Your task to perform on an android device: Add "lg ultragear" to the cart on ebay.com Image 0: 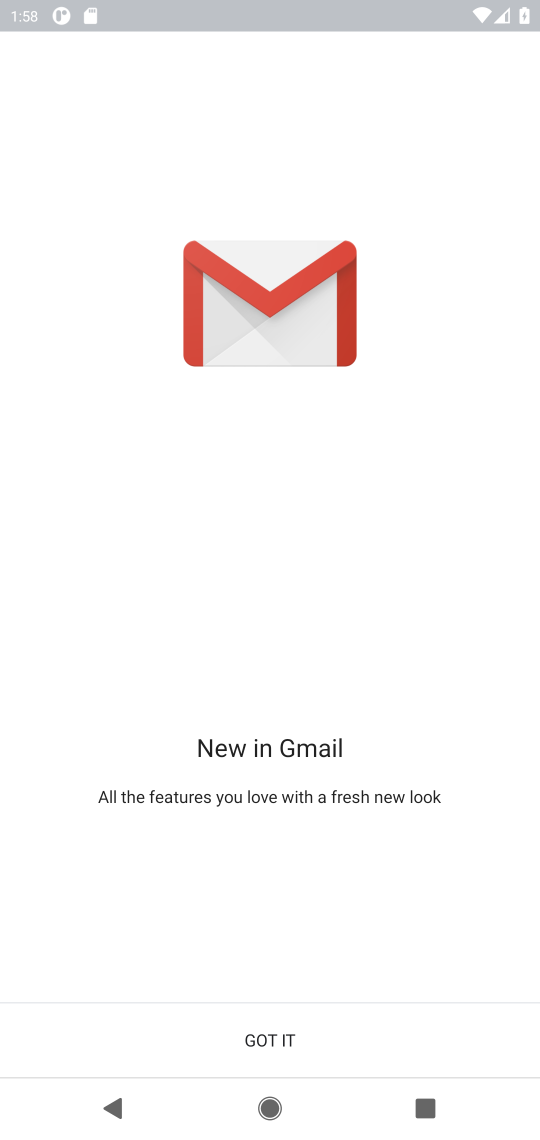
Step 0: press home button
Your task to perform on an android device: Add "lg ultragear" to the cart on ebay.com Image 1: 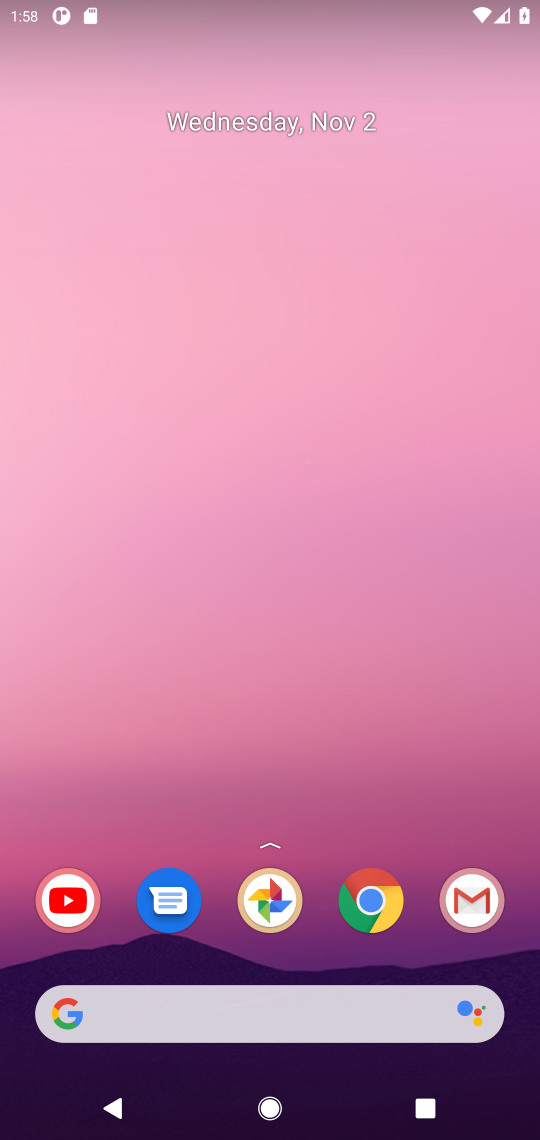
Step 1: click (342, 910)
Your task to perform on an android device: Add "lg ultragear" to the cart on ebay.com Image 2: 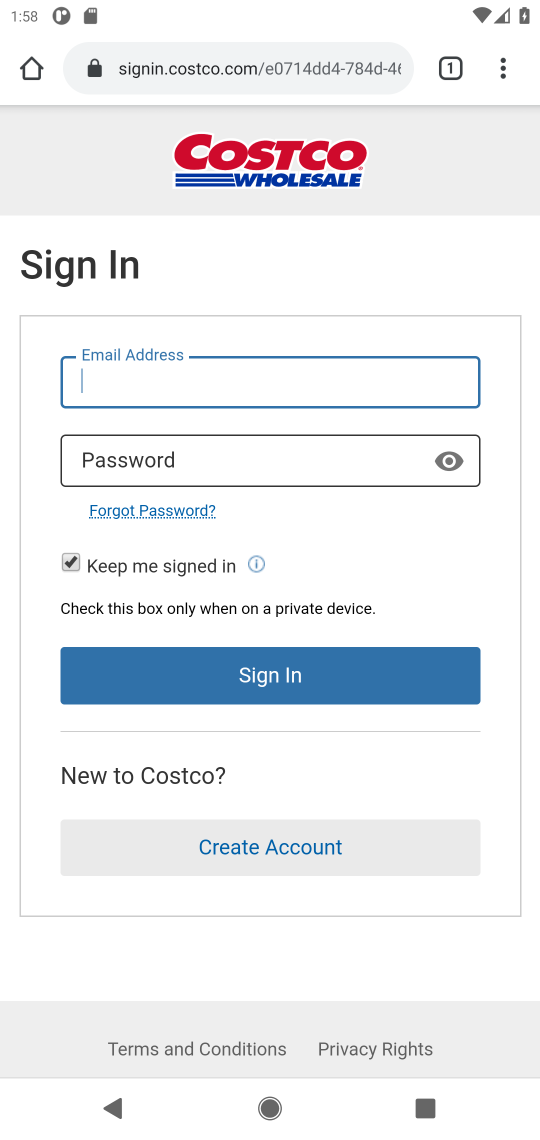
Step 2: press home button
Your task to perform on an android device: Add "lg ultragear" to the cart on ebay.com Image 3: 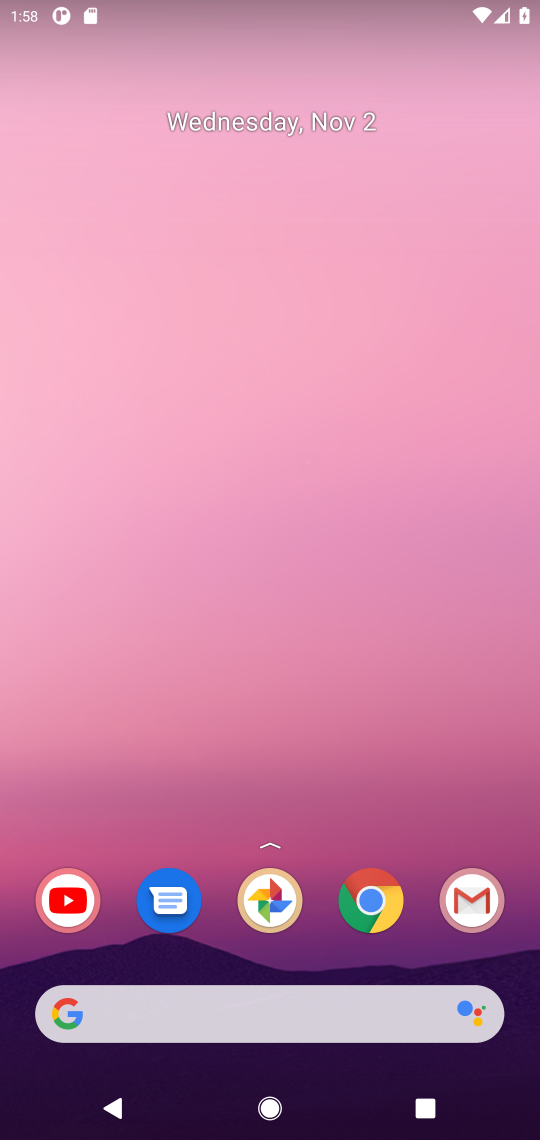
Step 3: click (370, 904)
Your task to perform on an android device: Add "lg ultragear" to the cart on ebay.com Image 4: 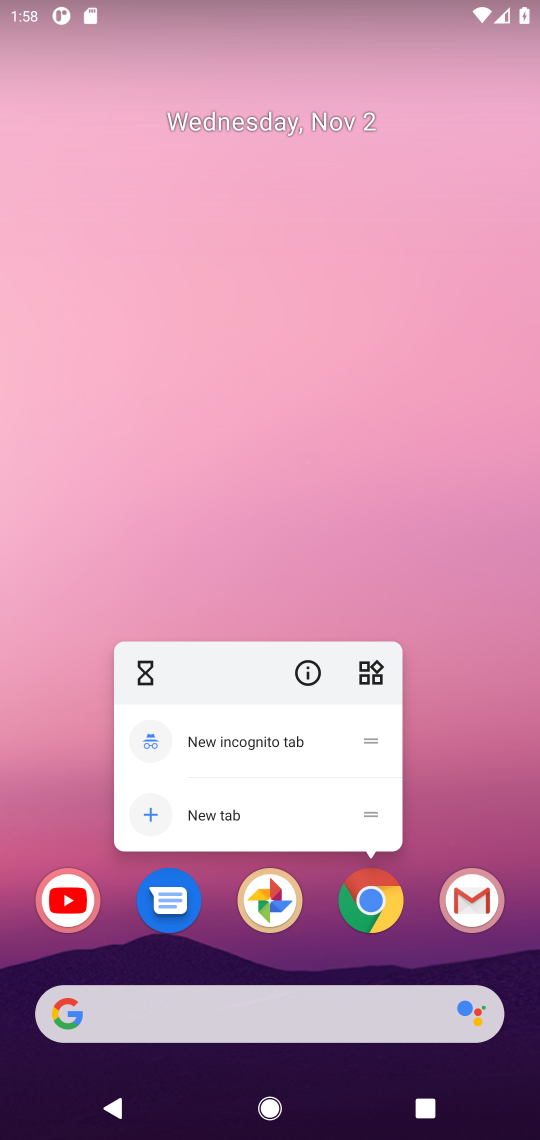
Step 4: click (385, 907)
Your task to perform on an android device: Add "lg ultragear" to the cart on ebay.com Image 5: 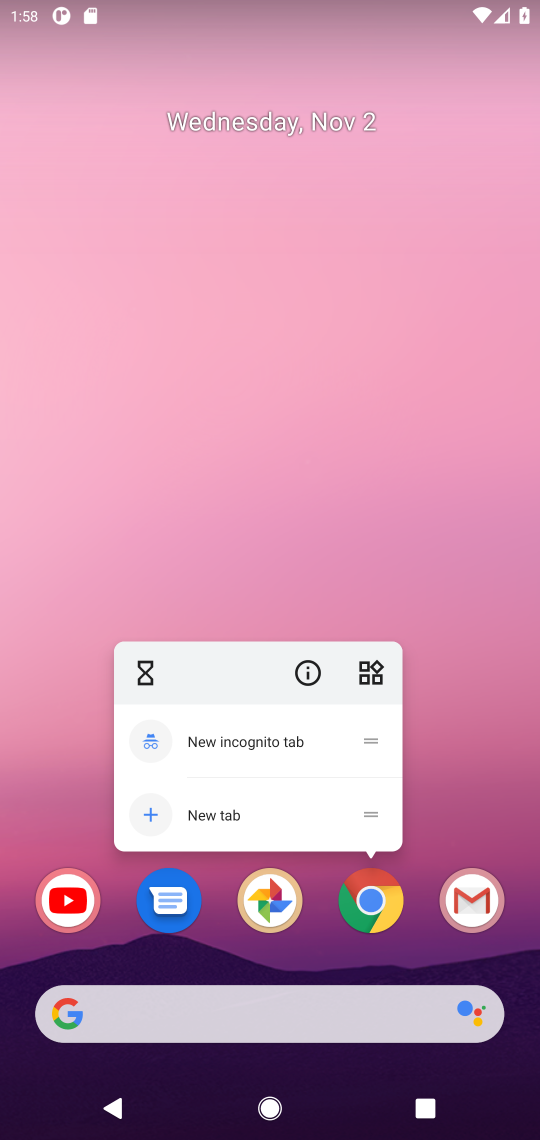
Step 5: click (373, 887)
Your task to perform on an android device: Add "lg ultragear" to the cart on ebay.com Image 6: 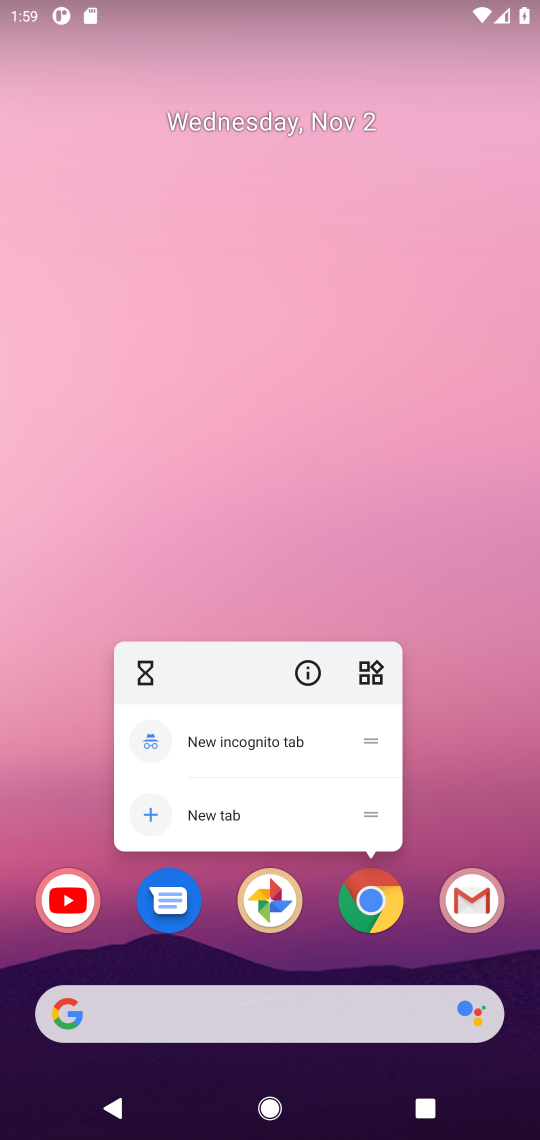
Step 6: click (359, 889)
Your task to perform on an android device: Add "lg ultragear" to the cart on ebay.com Image 7: 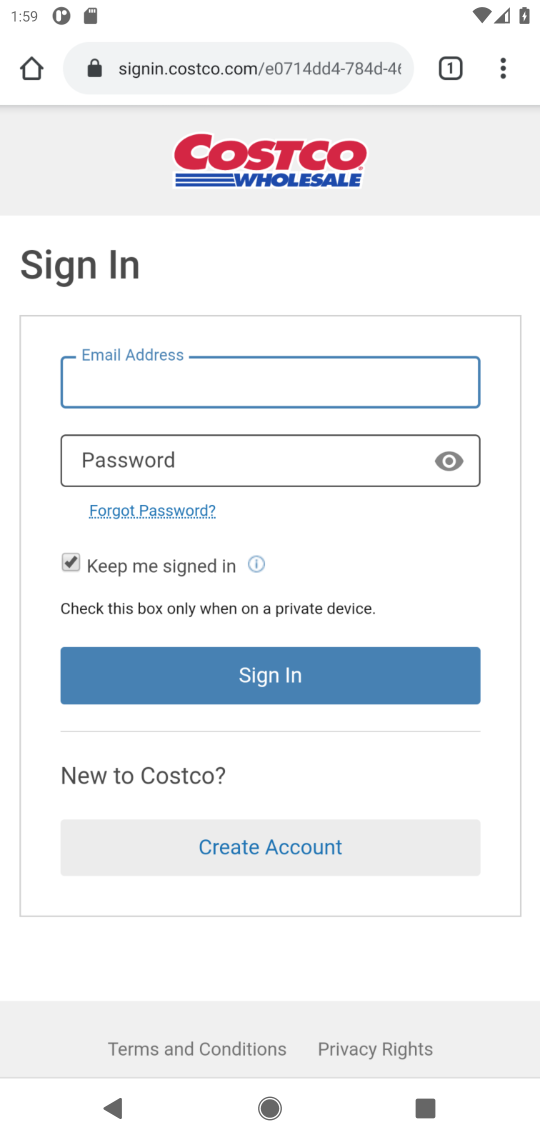
Step 7: click (372, 884)
Your task to perform on an android device: Add "lg ultragear" to the cart on ebay.com Image 8: 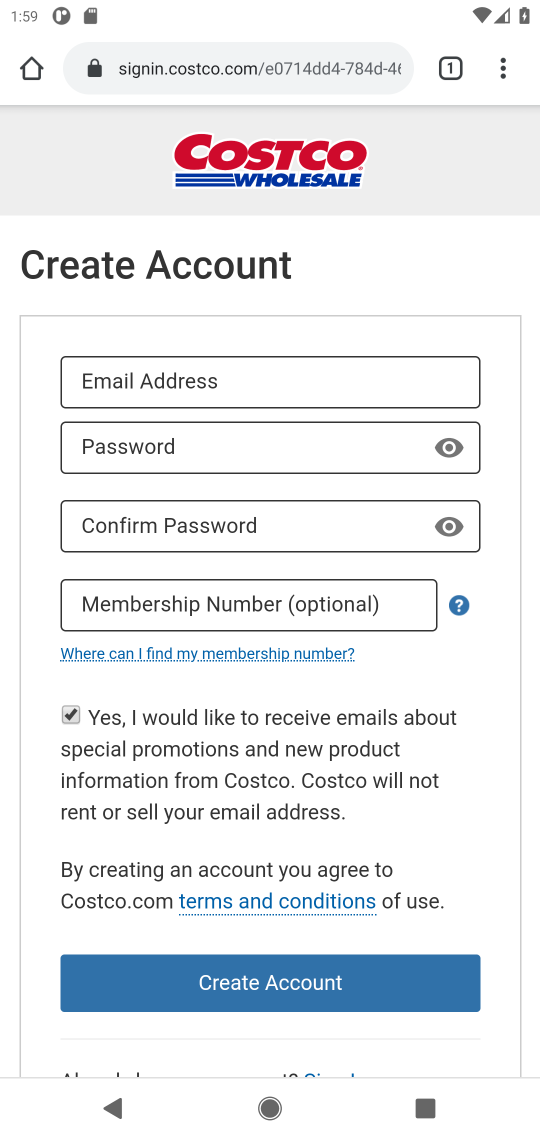
Step 8: click (135, 64)
Your task to perform on an android device: Add "lg ultragear" to the cart on ebay.com Image 9: 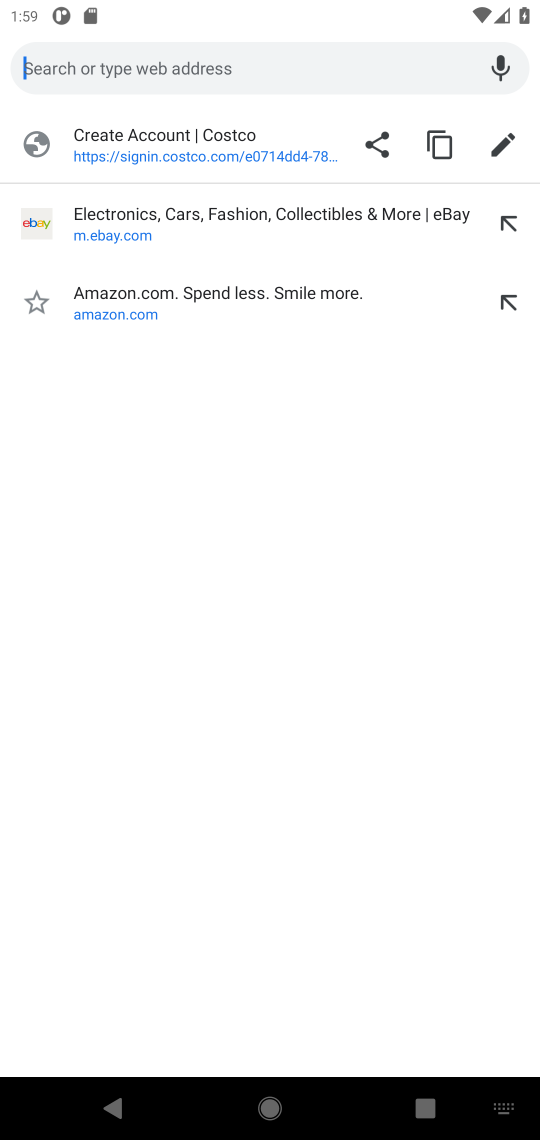
Step 9: type "ebay.com"
Your task to perform on an android device: Add "lg ultragear" to the cart on ebay.com Image 10: 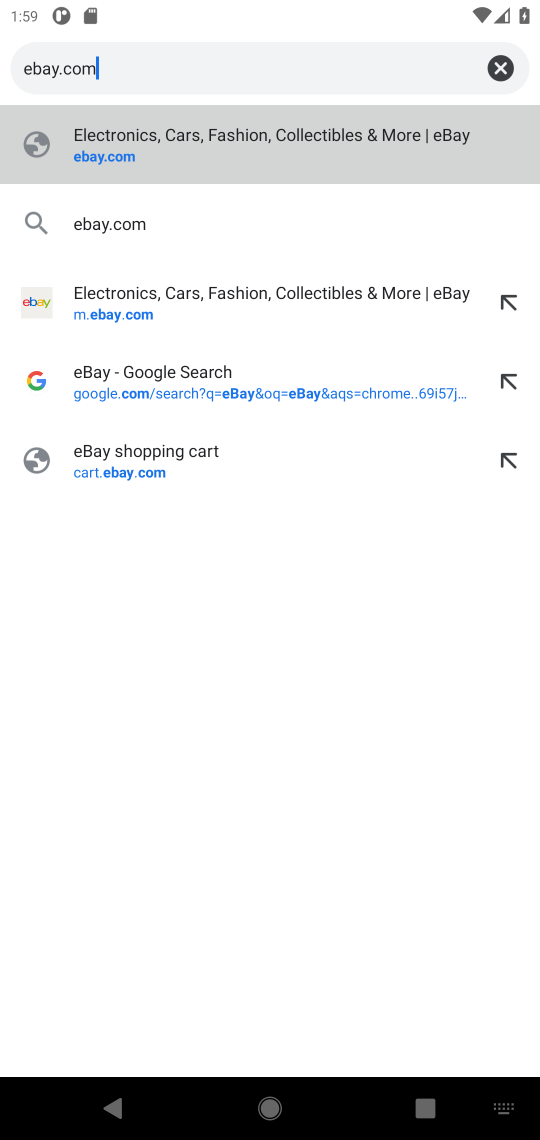
Step 10: click (110, 303)
Your task to perform on an android device: Add "lg ultragear" to the cart on ebay.com Image 11: 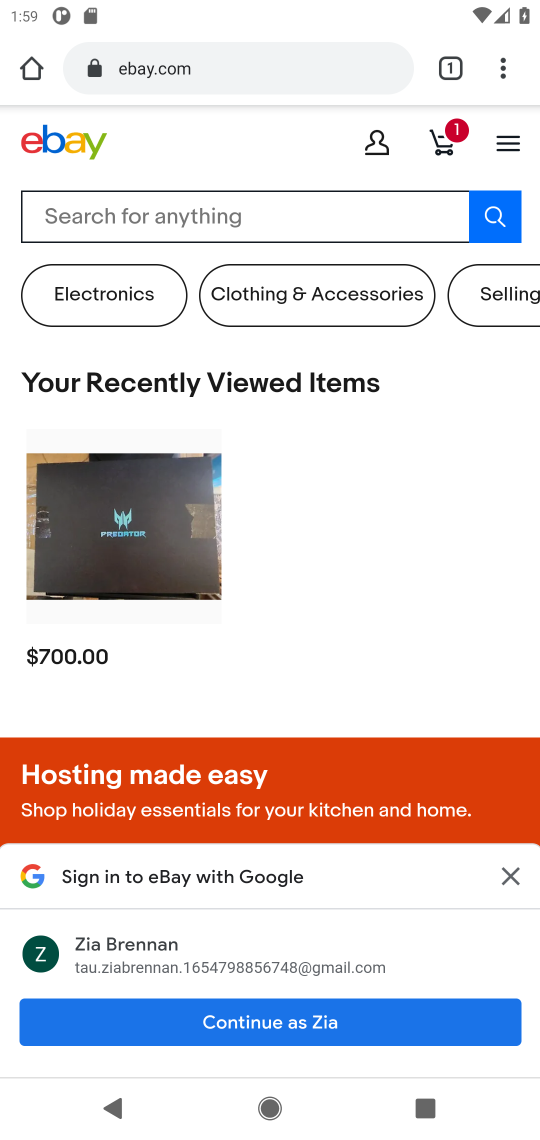
Step 11: click (127, 215)
Your task to perform on an android device: Add "lg ultragear" to the cart on ebay.com Image 12: 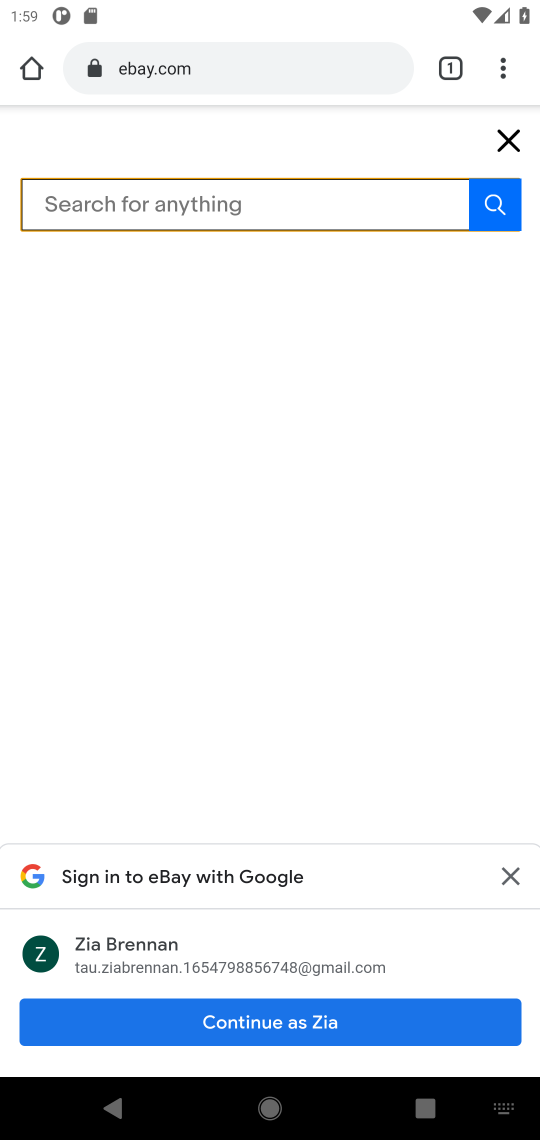
Step 12: type "lg ultragear"
Your task to perform on an android device: Add "lg ultragear" to the cart on ebay.com Image 13: 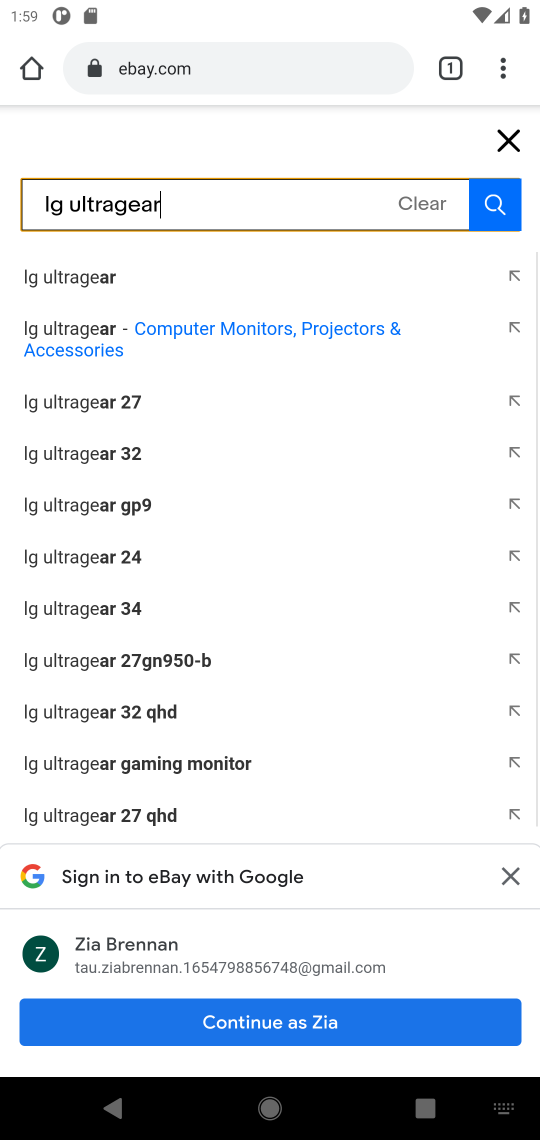
Step 13: type ""
Your task to perform on an android device: Add "lg ultragear" to the cart on ebay.com Image 14: 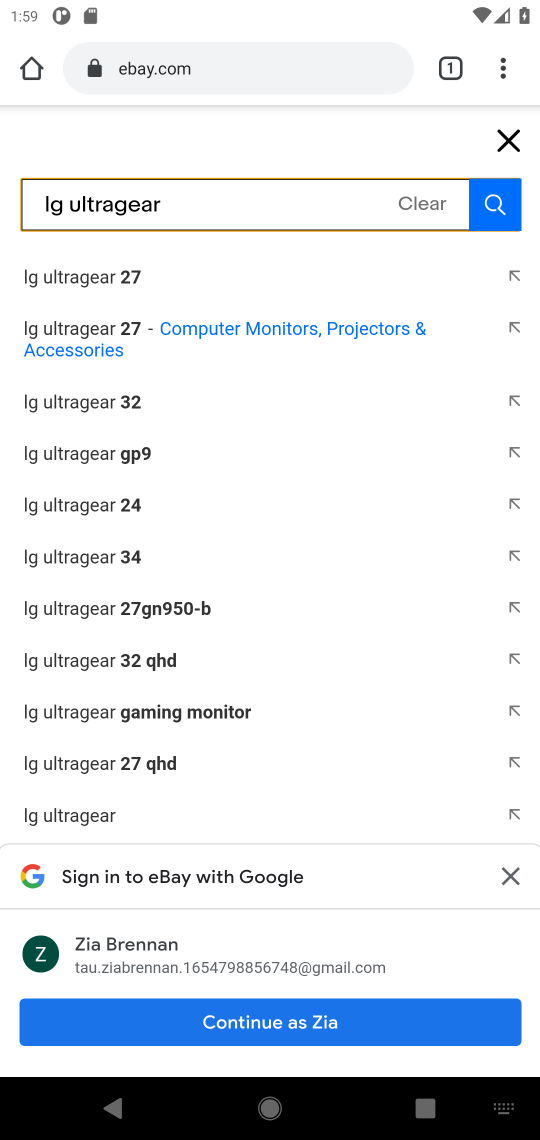
Step 14: click (99, 275)
Your task to perform on an android device: Add "lg ultragear" to the cart on ebay.com Image 15: 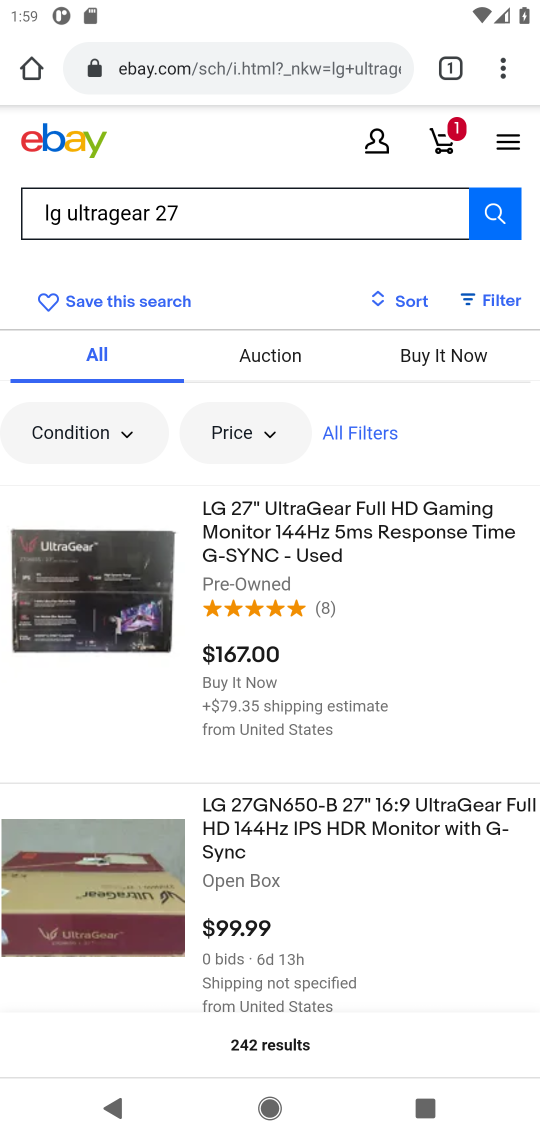
Step 15: click (319, 508)
Your task to perform on an android device: Add "lg ultragear" to the cart on ebay.com Image 16: 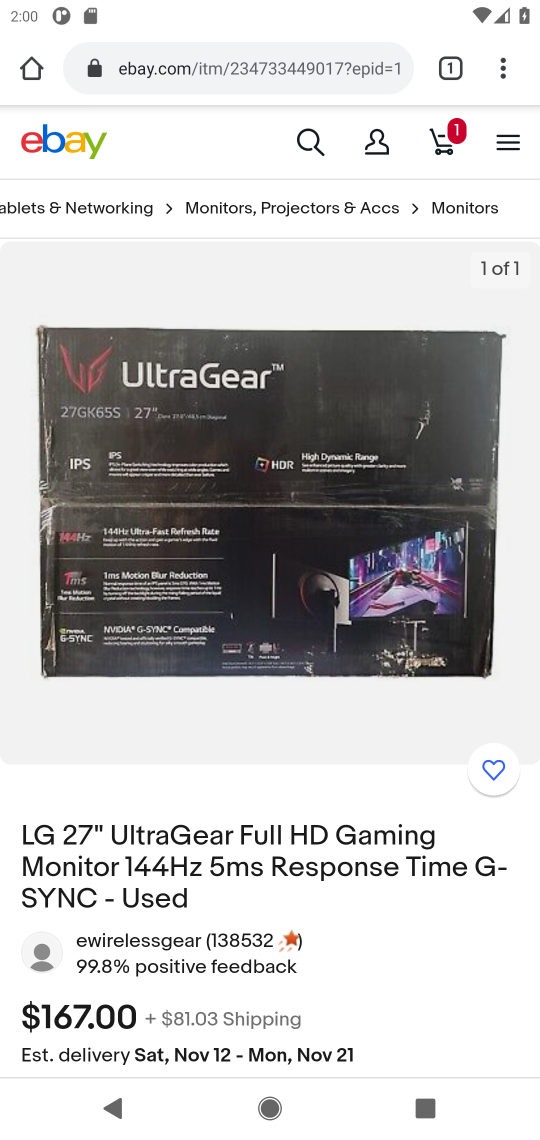
Step 16: drag from (256, 788) to (273, 488)
Your task to perform on an android device: Add "lg ultragear" to the cart on ebay.com Image 17: 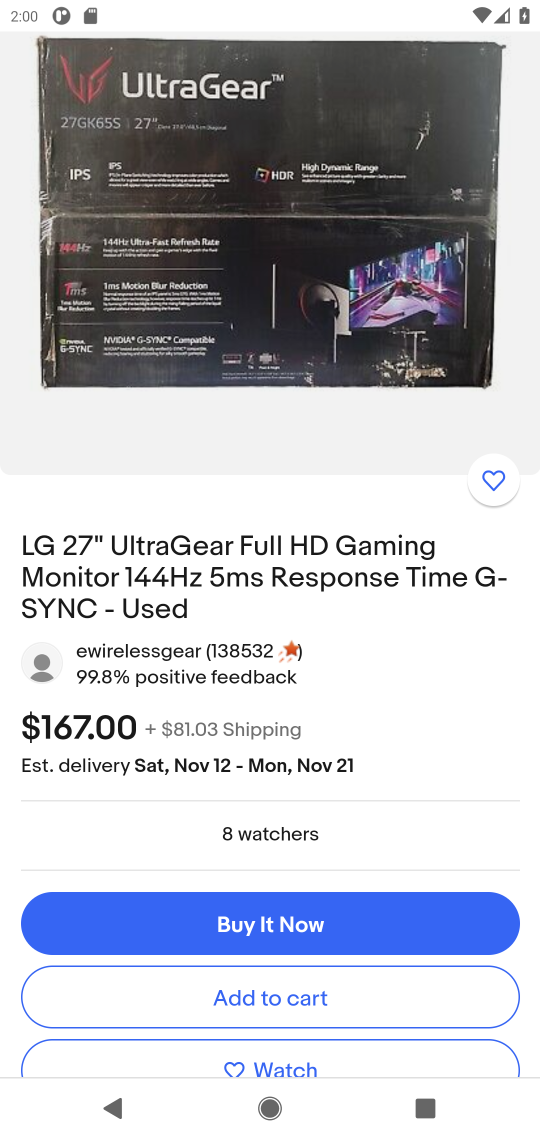
Step 17: drag from (267, 698) to (346, 405)
Your task to perform on an android device: Add "lg ultragear" to the cart on ebay.com Image 18: 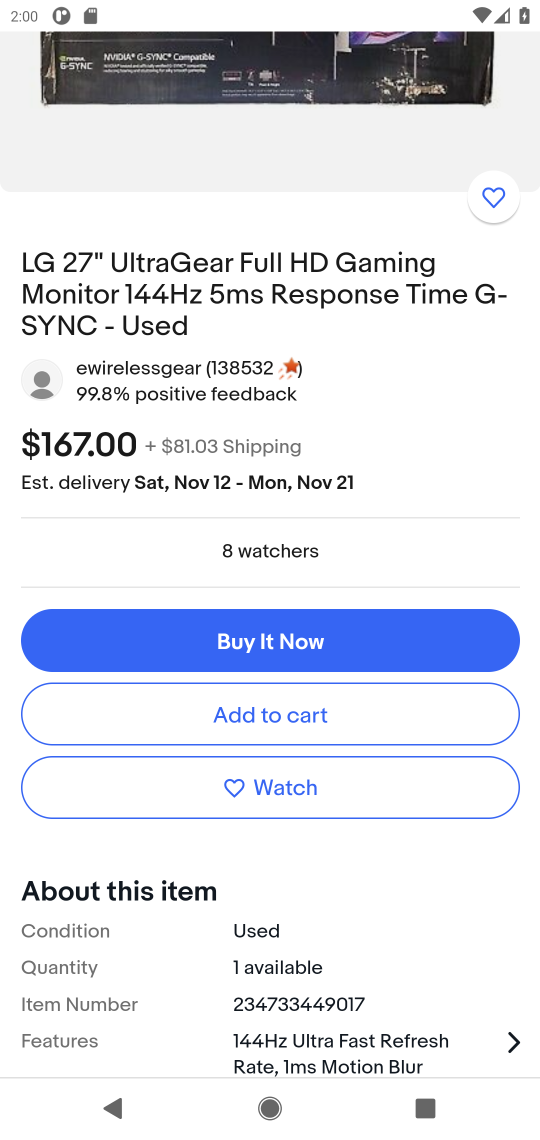
Step 18: click (278, 712)
Your task to perform on an android device: Add "lg ultragear" to the cart on ebay.com Image 19: 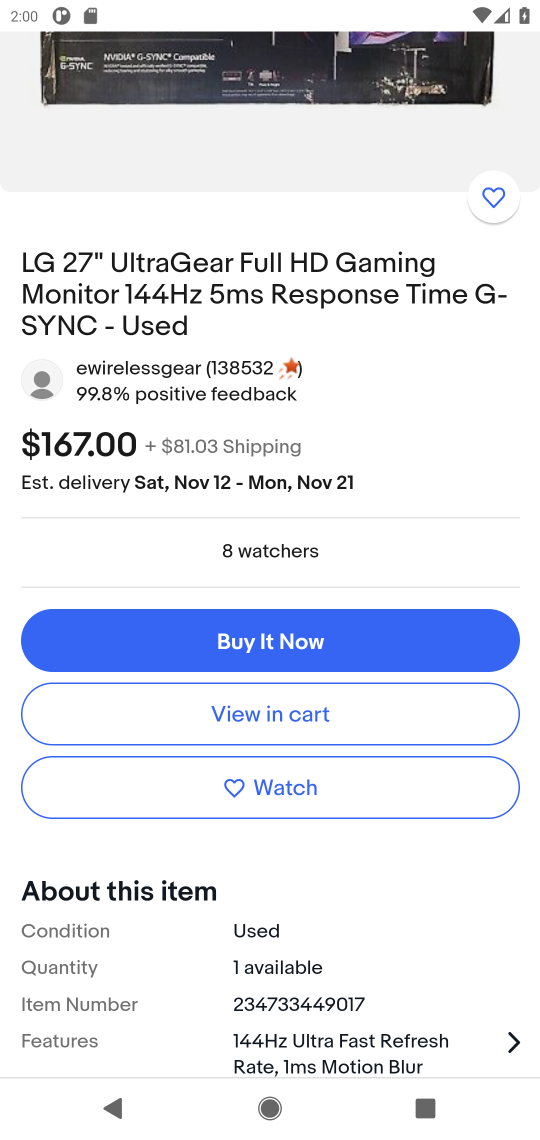
Step 19: click (277, 710)
Your task to perform on an android device: Add "lg ultragear" to the cart on ebay.com Image 20: 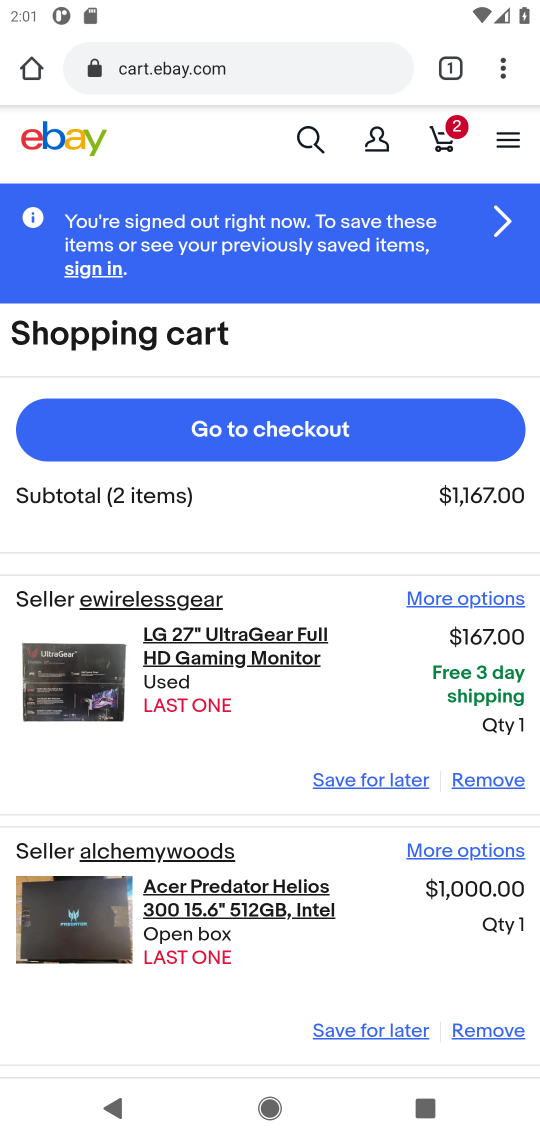
Step 20: click (221, 626)
Your task to perform on an android device: Add "lg ultragear" to the cart on ebay.com Image 21: 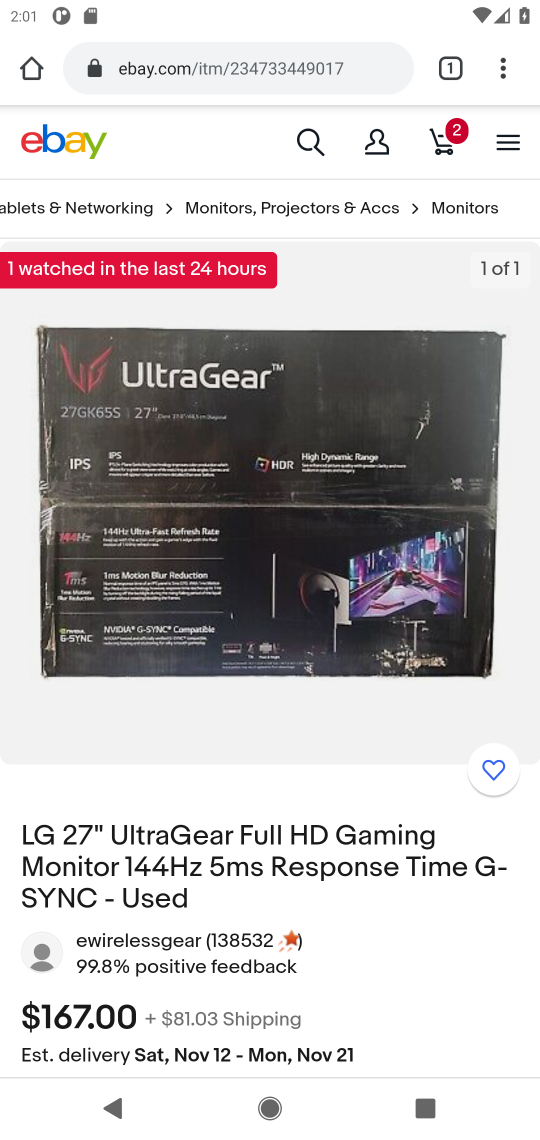
Step 21: task complete